Your task to perform on an android device: star an email in the gmail app Image 0: 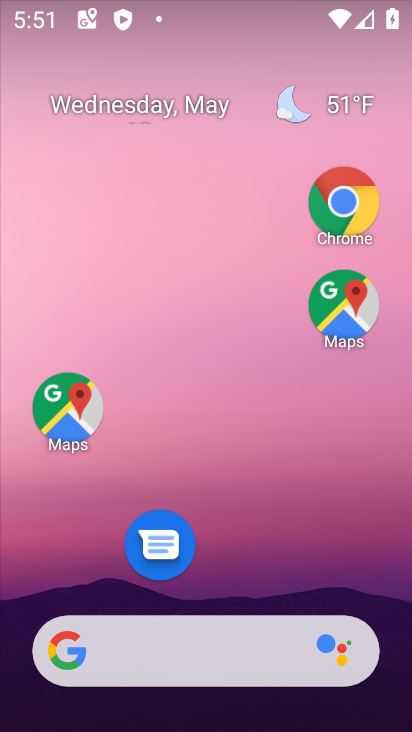
Step 0: press home button
Your task to perform on an android device: star an email in the gmail app Image 1: 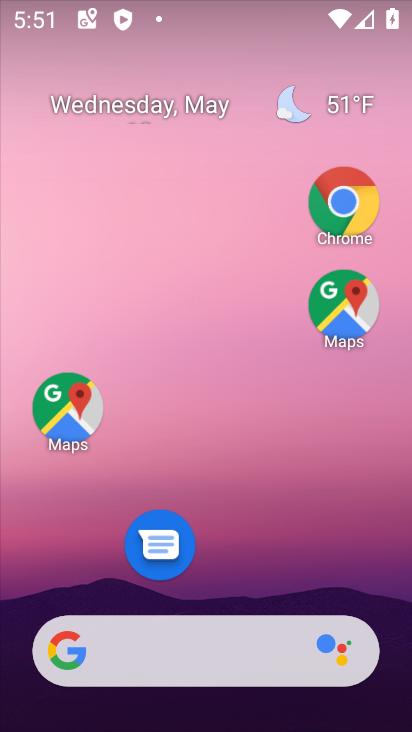
Step 1: drag from (369, 339) to (389, 291)
Your task to perform on an android device: star an email in the gmail app Image 2: 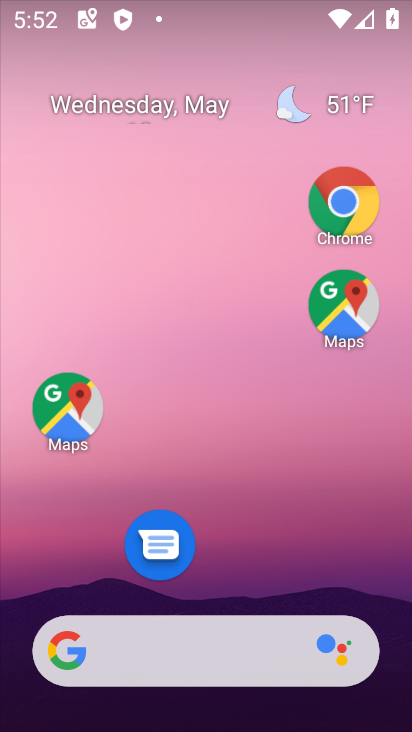
Step 2: drag from (230, 520) to (236, 36)
Your task to perform on an android device: star an email in the gmail app Image 3: 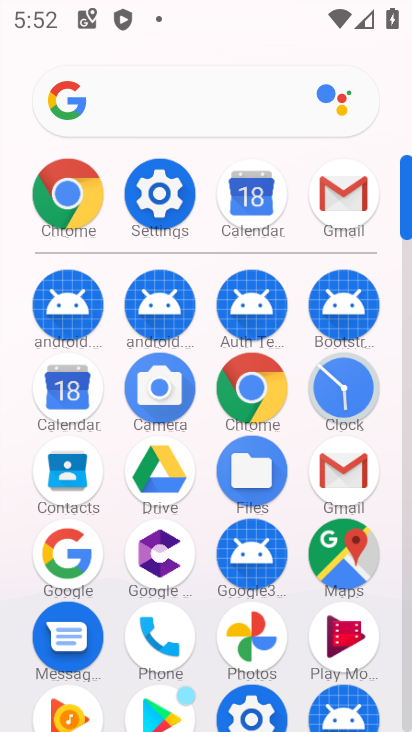
Step 3: click (327, 209)
Your task to perform on an android device: star an email in the gmail app Image 4: 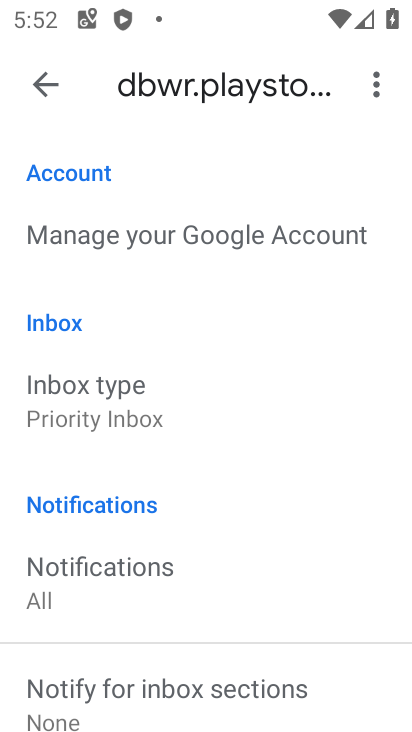
Step 4: drag from (112, 592) to (118, 328)
Your task to perform on an android device: star an email in the gmail app Image 5: 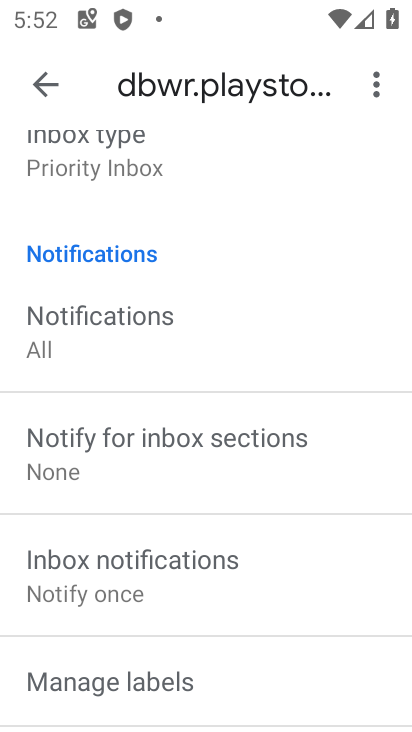
Step 5: click (38, 86)
Your task to perform on an android device: star an email in the gmail app Image 6: 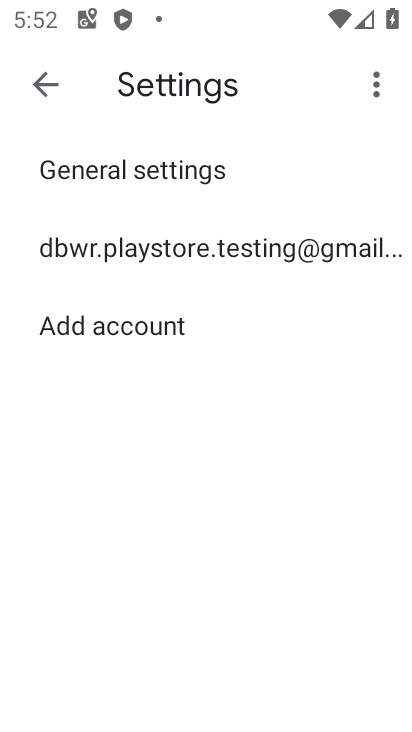
Step 6: click (49, 83)
Your task to perform on an android device: star an email in the gmail app Image 7: 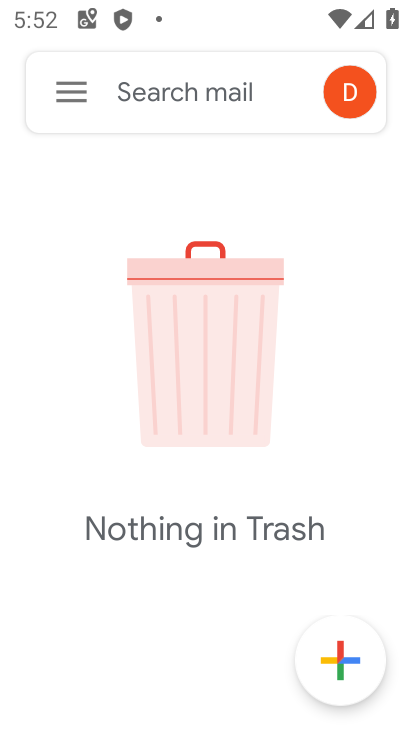
Step 7: click (61, 91)
Your task to perform on an android device: star an email in the gmail app Image 8: 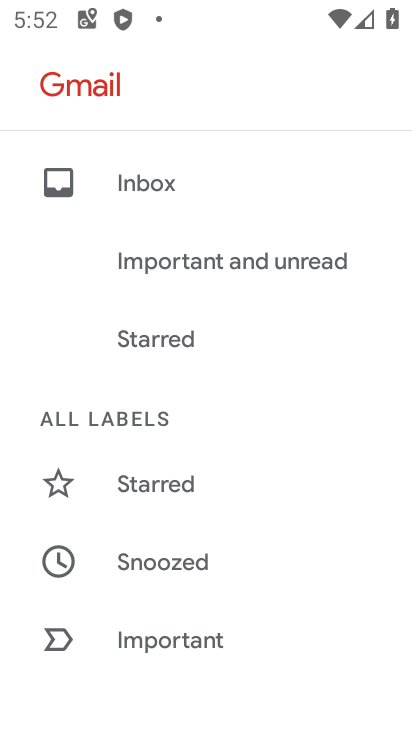
Step 8: drag from (202, 613) to (221, 182)
Your task to perform on an android device: star an email in the gmail app Image 9: 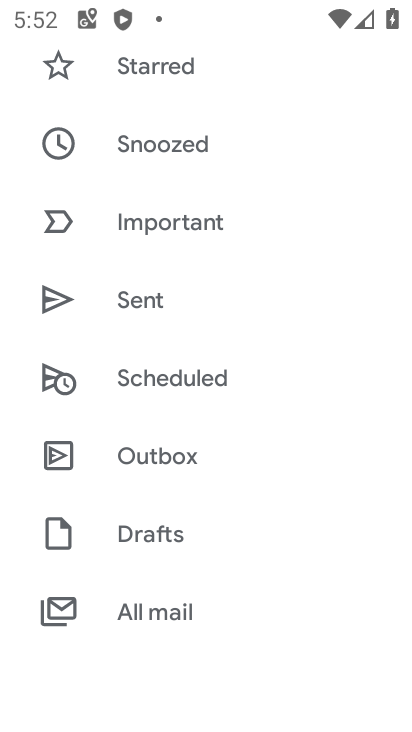
Step 9: click (173, 606)
Your task to perform on an android device: star an email in the gmail app Image 10: 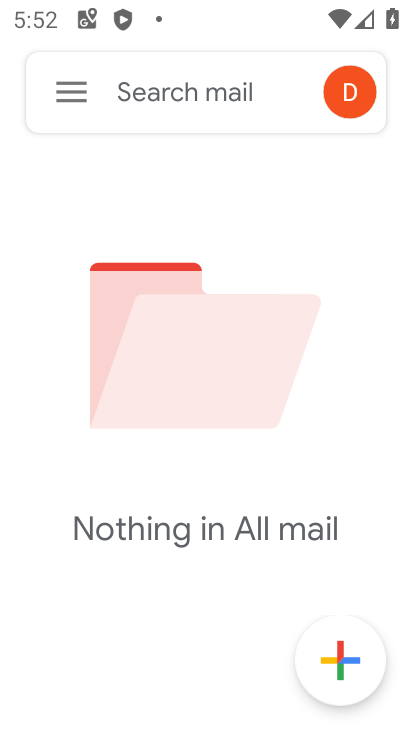
Step 10: task complete